Your task to perform on an android device: check android version Image 0: 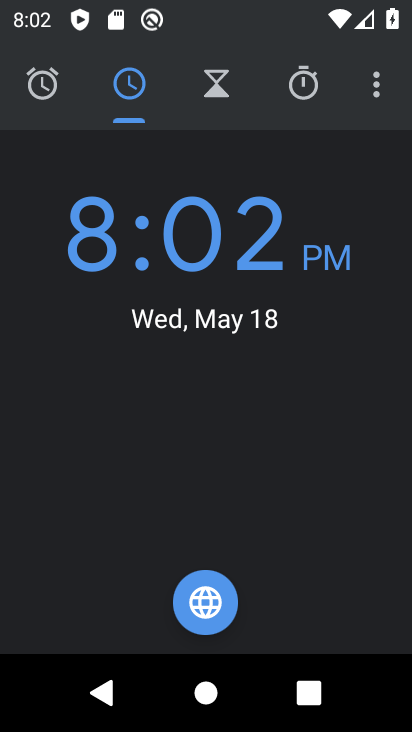
Step 0: press home button
Your task to perform on an android device: check android version Image 1: 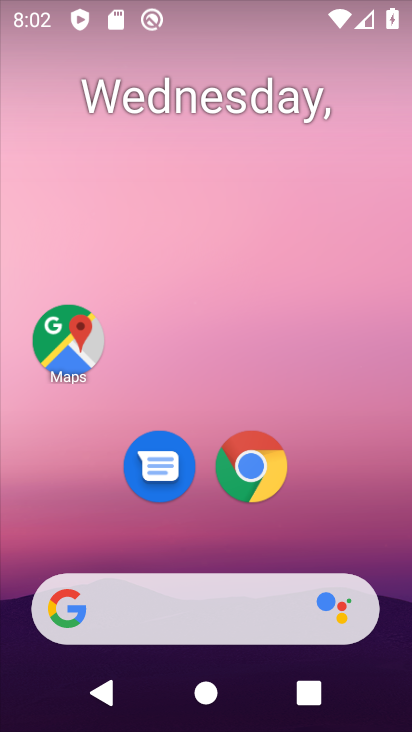
Step 1: drag from (270, 530) to (281, 11)
Your task to perform on an android device: check android version Image 2: 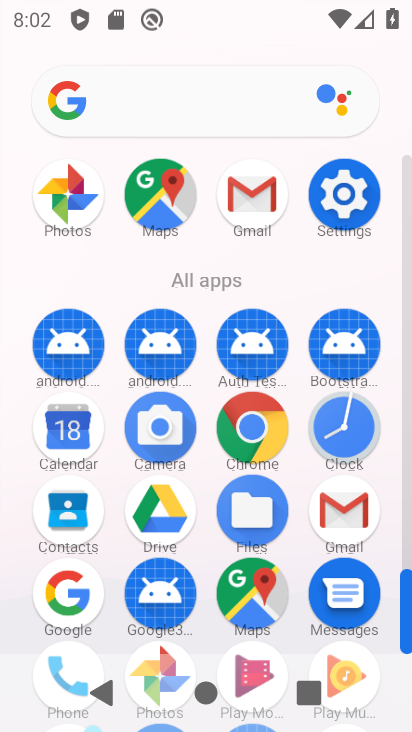
Step 2: click (365, 211)
Your task to perform on an android device: check android version Image 3: 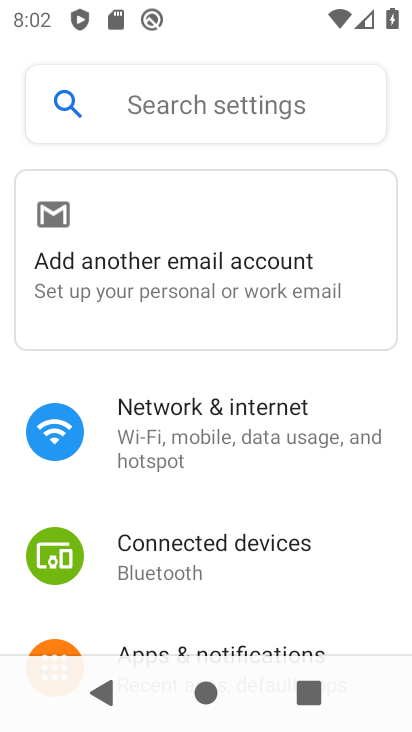
Step 3: drag from (229, 545) to (260, 117)
Your task to perform on an android device: check android version Image 4: 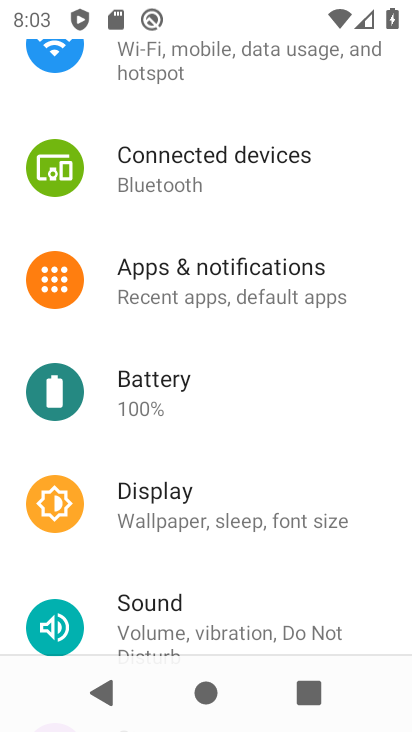
Step 4: drag from (219, 501) to (316, 0)
Your task to perform on an android device: check android version Image 5: 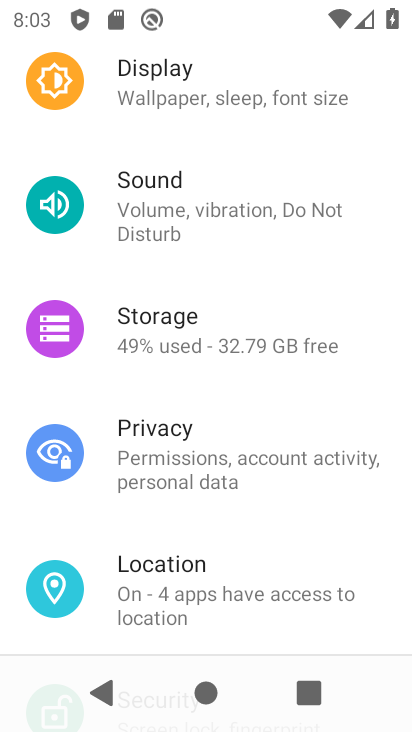
Step 5: drag from (247, 526) to (277, 48)
Your task to perform on an android device: check android version Image 6: 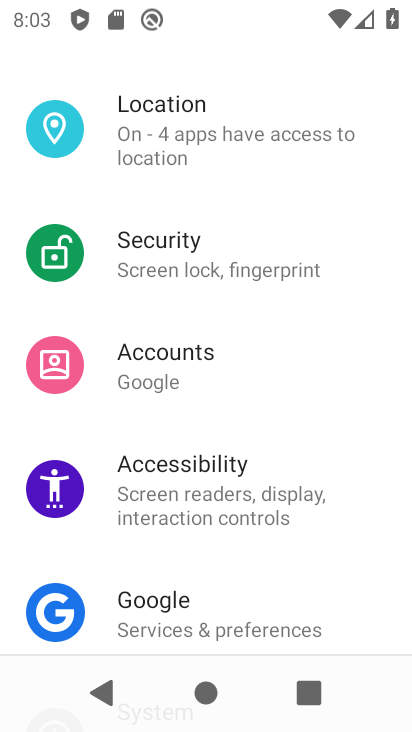
Step 6: drag from (221, 554) to (311, 120)
Your task to perform on an android device: check android version Image 7: 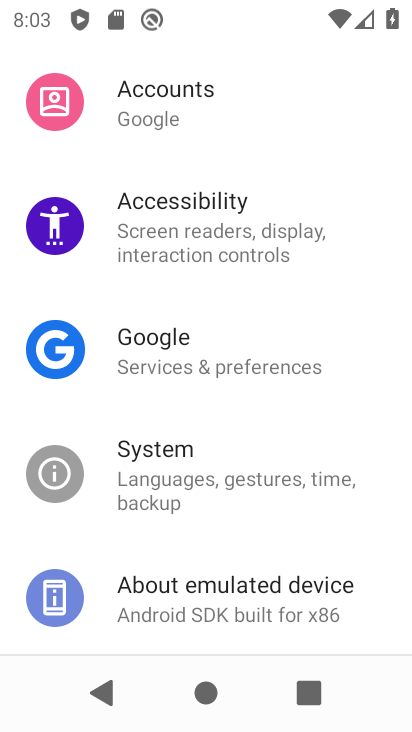
Step 7: click (204, 606)
Your task to perform on an android device: check android version Image 8: 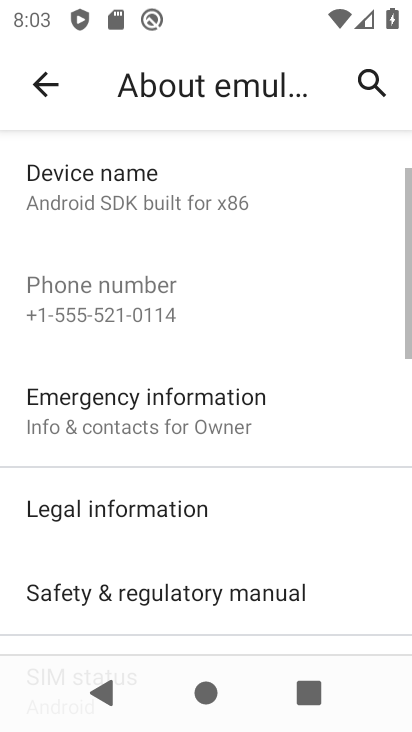
Step 8: drag from (215, 546) to (314, 101)
Your task to perform on an android device: check android version Image 9: 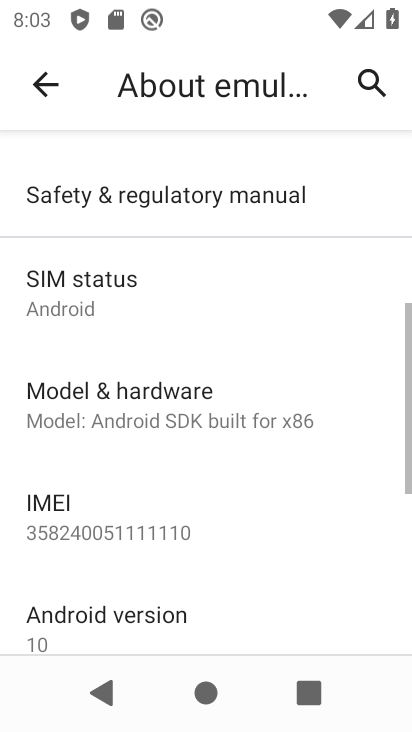
Step 9: drag from (173, 515) to (219, 292)
Your task to perform on an android device: check android version Image 10: 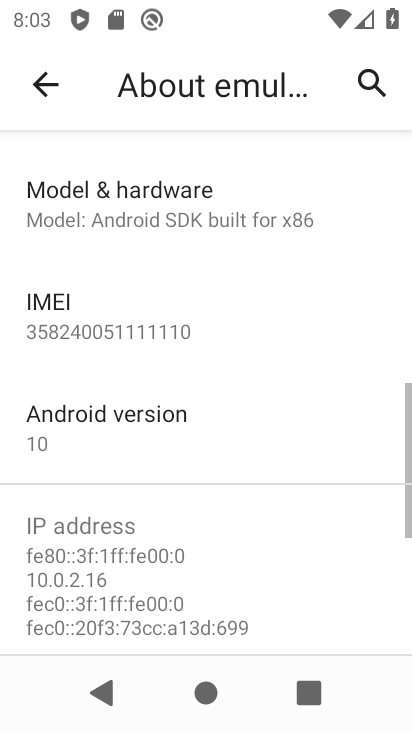
Step 10: click (139, 422)
Your task to perform on an android device: check android version Image 11: 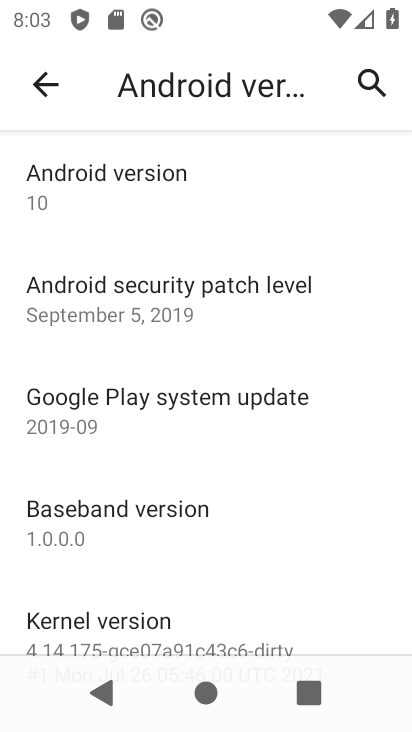
Step 11: task complete